Your task to perform on an android device: check data usage Image 0: 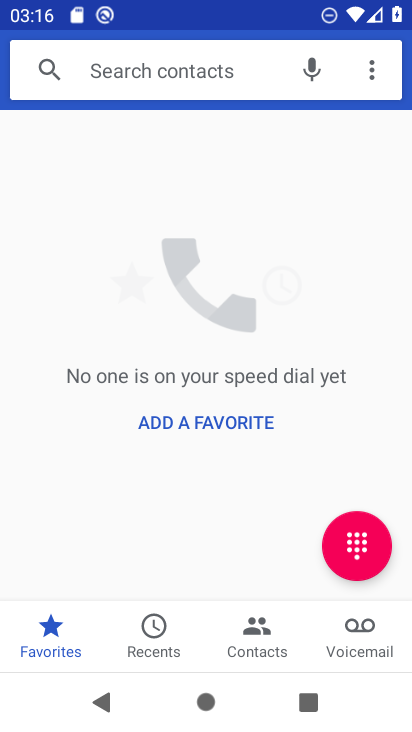
Step 0: press home button
Your task to perform on an android device: check data usage Image 1: 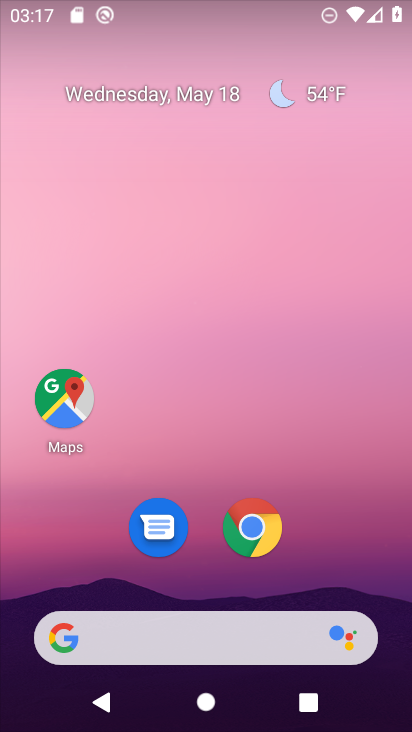
Step 1: drag from (190, 615) to (200, 23)
Your task to perform on an android device: check data usage Image 2: 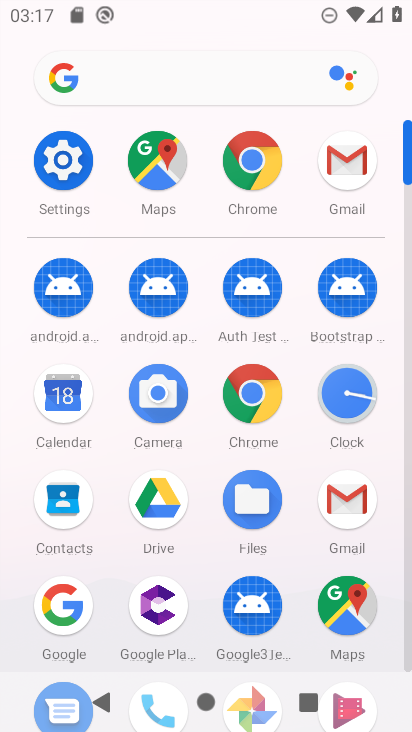
Step 2: click (70, 165)
Your task to perform on an android device: check data usage Image 3: 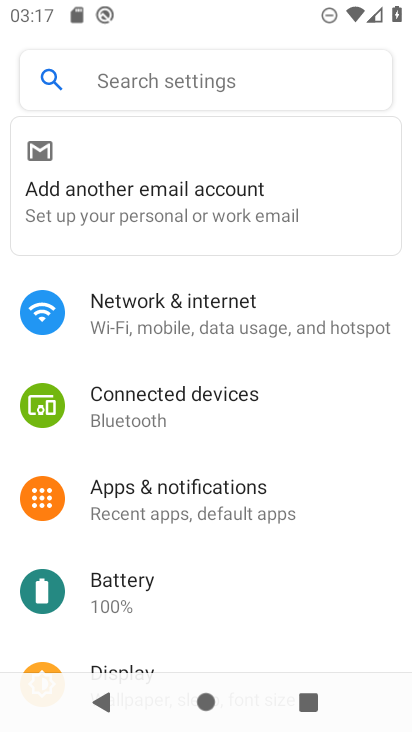
Step 3: click (60, 338)
Your task to perform on an android device: check data usage Image 4: 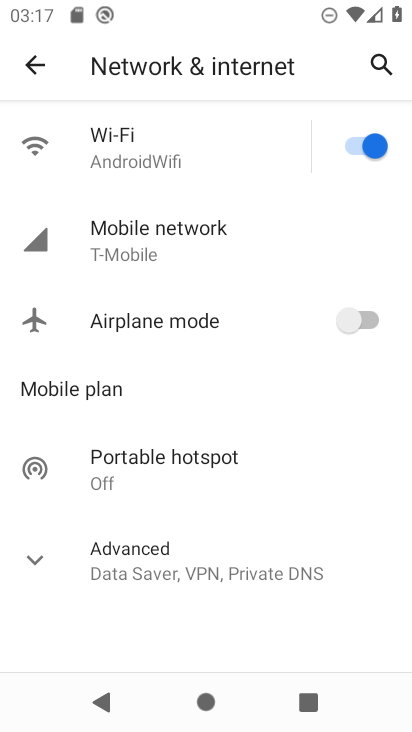
Step 4: click (163, 232)
Your task to perform on an android device: check data usage Image 5: 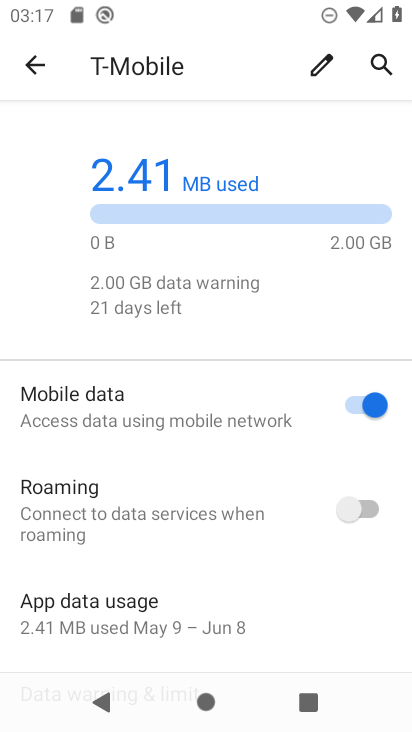
Step 5: task complete